Your task to perform on an android device: Empty the shopping cart on walmart. Search for "acer nitro" on walmart, select the first entry, add it to the cart, then select checkout. Image 0: 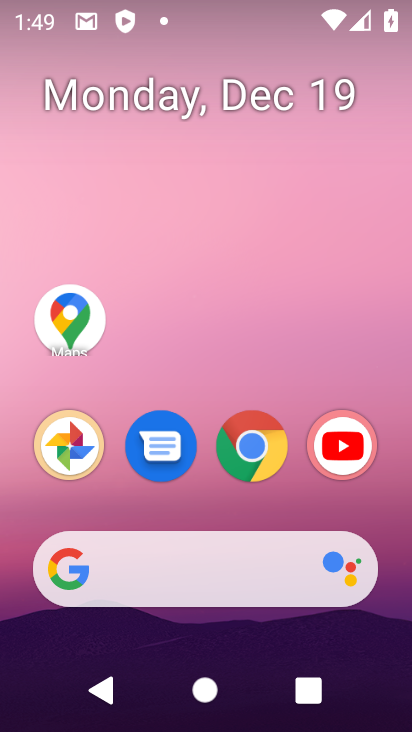
Step 0: click (274, 476)
Your task to perform on an android device: Empty the shopping cart on walmart. Search for "acer nitro" on walmart, select the first entry, add it to the cart, then select checkout. Image 1: 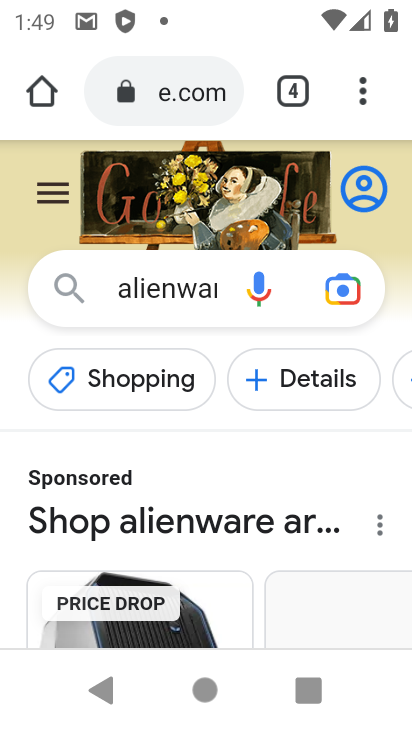
Step 1: click (189, 105)
Your task to perform on an android device: Empty the shopping cart on walmart. Search for "acer nitro" on walmart, select the first entry, add it to the cart, then select checkout. Image 2: 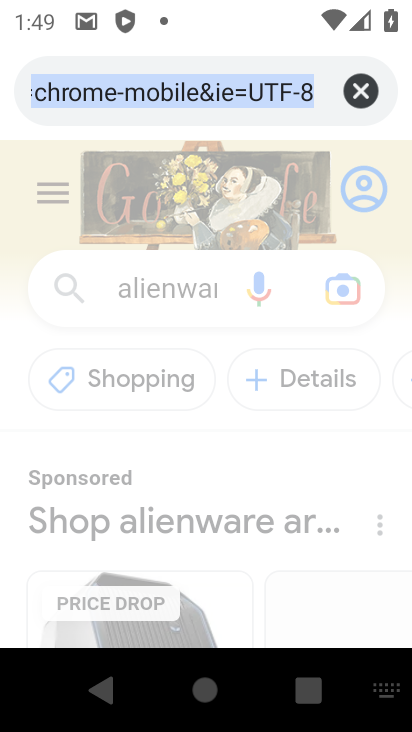
Step 2: type "walmart"
Your task to perform on an android device: Empty the shopping cart on walmart. Search for "acer nitro" on walmart, select the first entry, add it to the cart, then select checkout. Image 3: 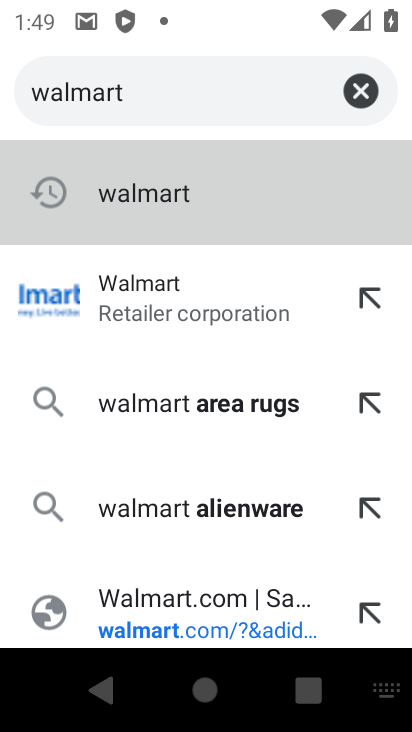
Step 3: click (148, 295)
Your task to perform on an android device: Empty the shopping cart on walmart. Search for "acer nitro" on walmart, select the first entry, add it to the cart, then select checkout. Image 4: 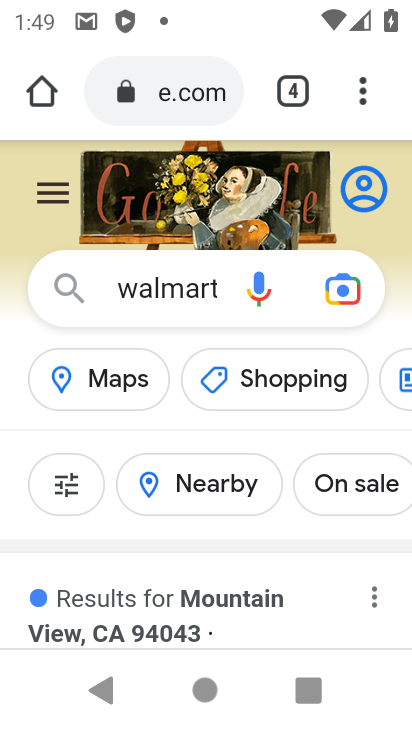
Step 4: drag from (200, 624) to (282, 169)
Your task to perform on an android device: Empty the shopping cart on walmart. Search for "acer nitro" on walmart, select the first entry, add it to the cart, then select checkout. Image 5: 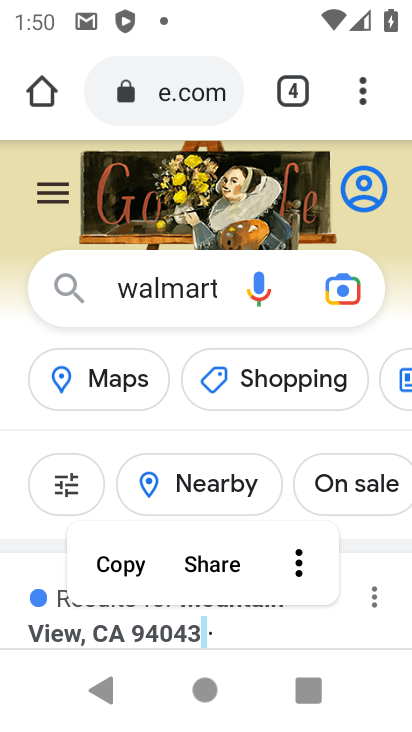
Step 5: click (298, 634)
Your task to perform on an android device: Empty the shopping cart on walmart. Search for "acer nitro" on walmart, select the first entry, add it to the cart, then select checkout. Image 6: 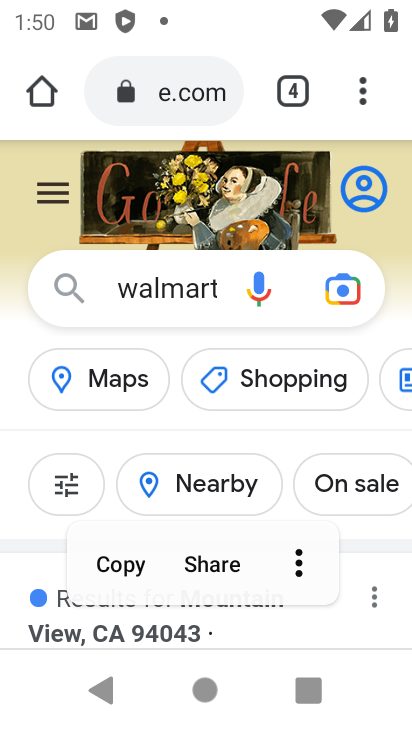
Step 6: drag from (298, 634) to (350, 414)
Your task to perform on an android device: Empty the shopping cart on walmart. Search for "acer nitro" on walmart, select the first entry, add it to the cart, then select checkout. Image 7: 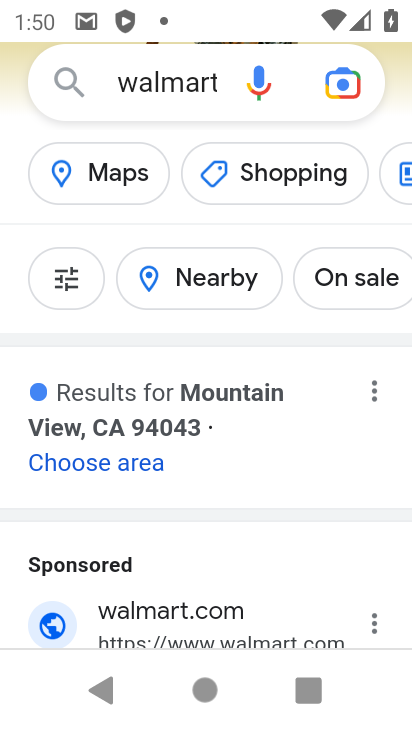
Step 7: click (189, 623)
Your task to perform on an android device: Empty the shopping cart on walmart. Search for "acer nitro" on walmart, select the first entry, add it to the cart, then select checkout. Image 8: 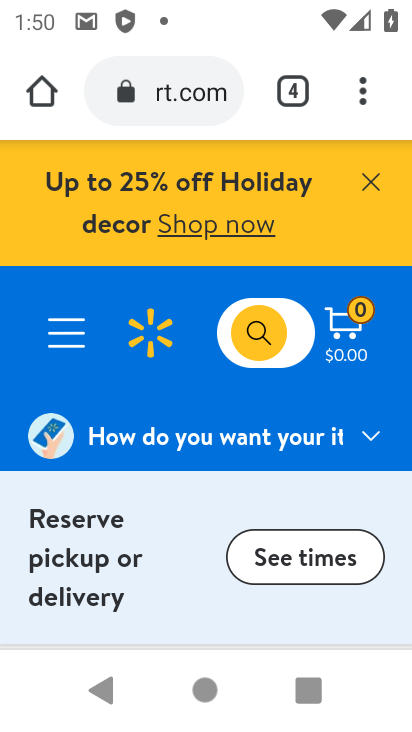
Step 8: task complete